Your task to perform on an android device: What's the weather going to be this weekend? Image 0: 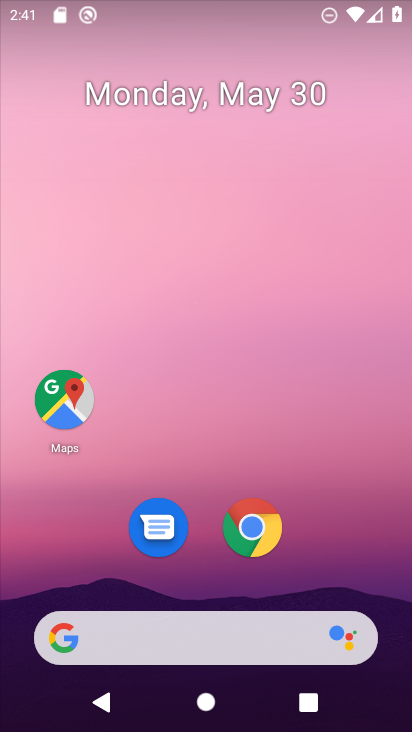
Step 0: drag from (239, 712) to (231, 17)
Your task to perform on an android device: What's the weather going to be this weekend? Image 1: 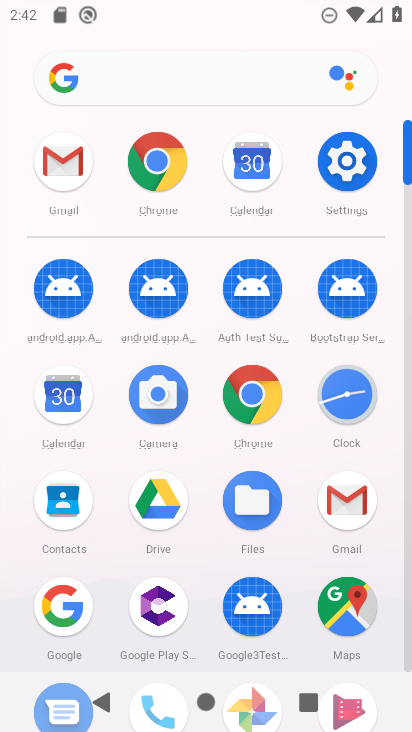
Step 1: press back button
Your task to perform on an android device: What's the weather going to be this weekend? Image 2: 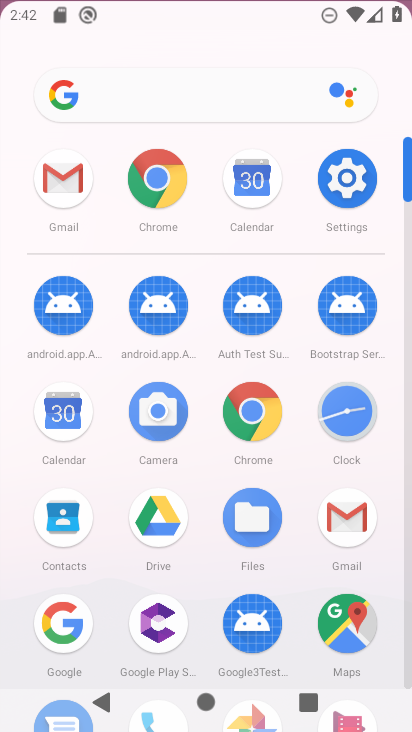
Step 2: press back button
Your task to perform on an android device: What's the weather going to be this weekend? Image 3: 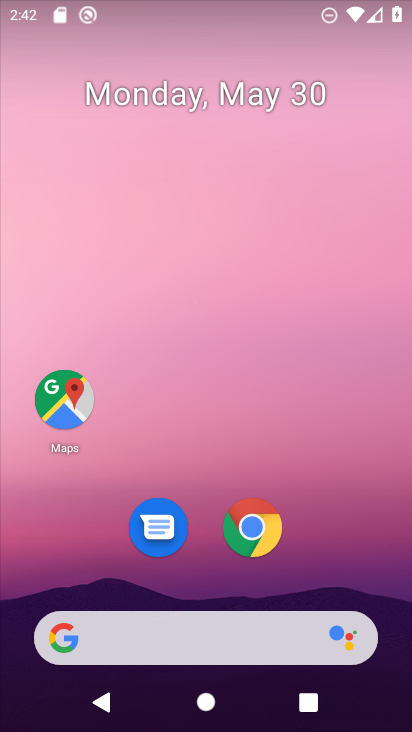
Step 3: drag from (52, 303) to (340, 448)
Your task to perform on an android device: What's the weather going to be this weekend? Image 4: 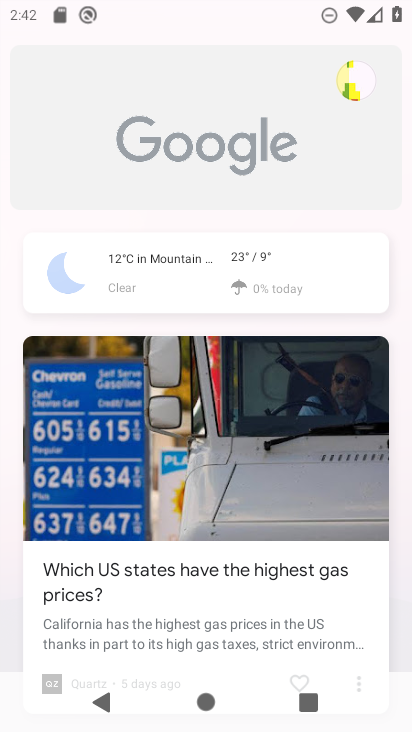
Step 4: drag from (96, 312) to (398, 467)
Your task to perform on an android device: What's the weather going to be this weekend? Image 5: 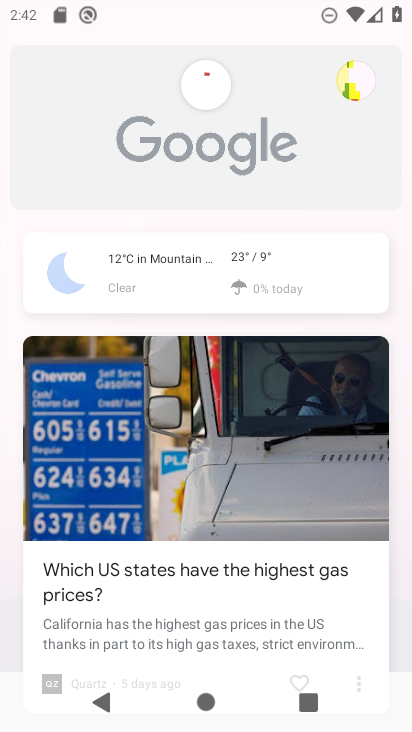
Step 5: click (190, 275)
Your task to perform on an android device: What's the weather going to be this weekend? Image 6: 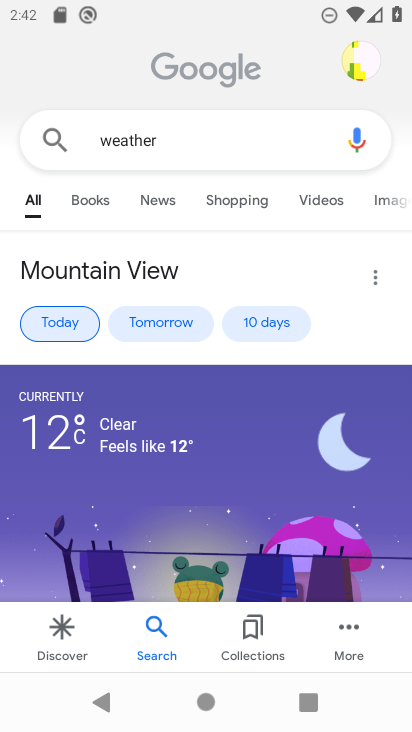
Step 6: click (182, 134)
Your task to perform on an android device: What's the weather going to be this weekend? Image 7: 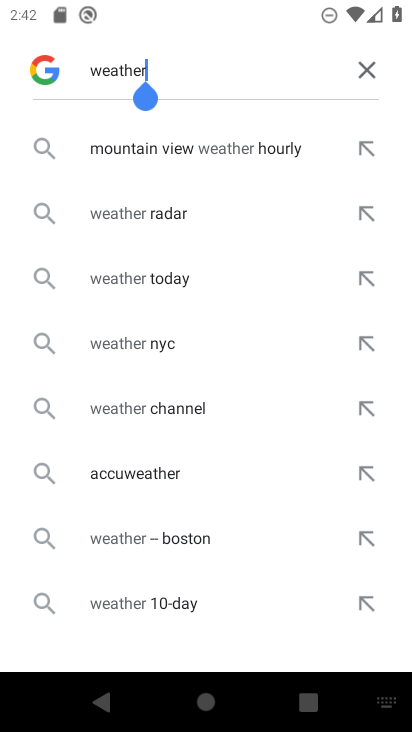
Step 7: press back button
Your task to perform on an android device: What's the weather going to be this weekend? Image 8: 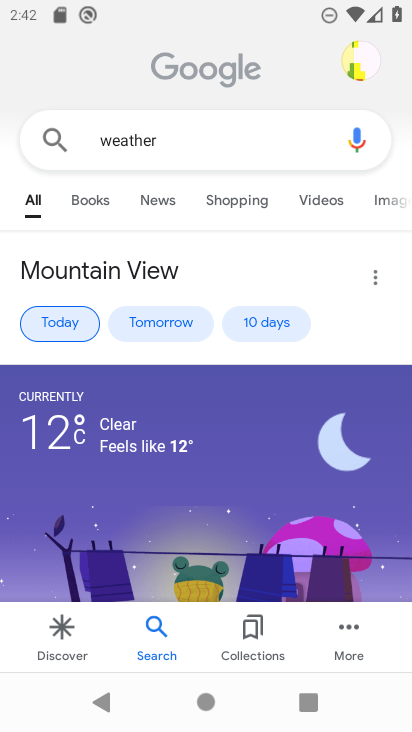
Step 8: click (345, 640)
Your task to perform on an android device: What's the weather going to be this weekend? Image 9: 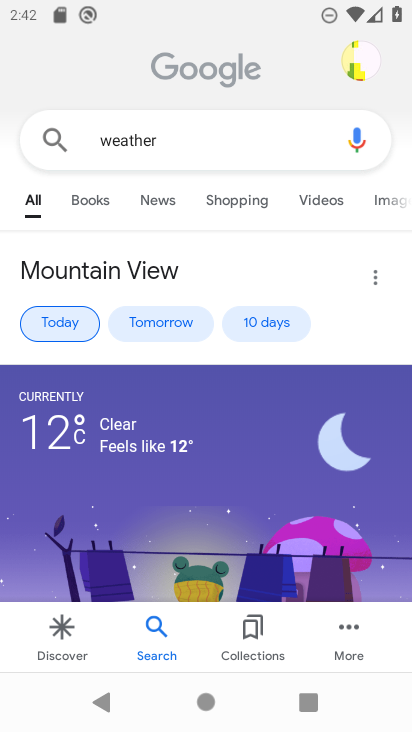
Step 9: click (345, 640)
Your task to perform on an android device: What's the weather going to be this weekend? Image 10: 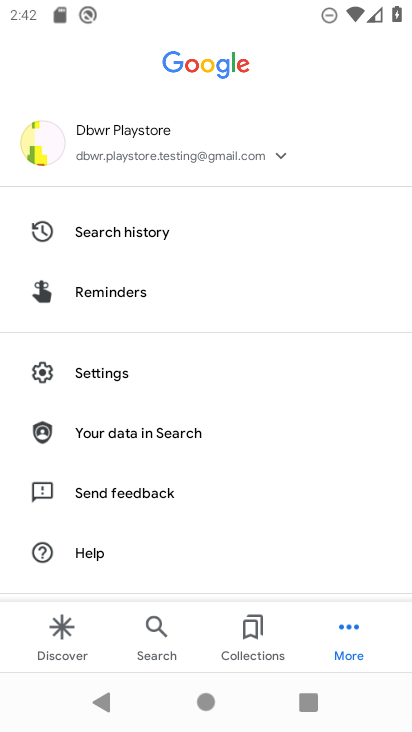
Step 10: click (345, 640)
Your task to perform on an android device: What's the weather going to be this weekend? Image 11: 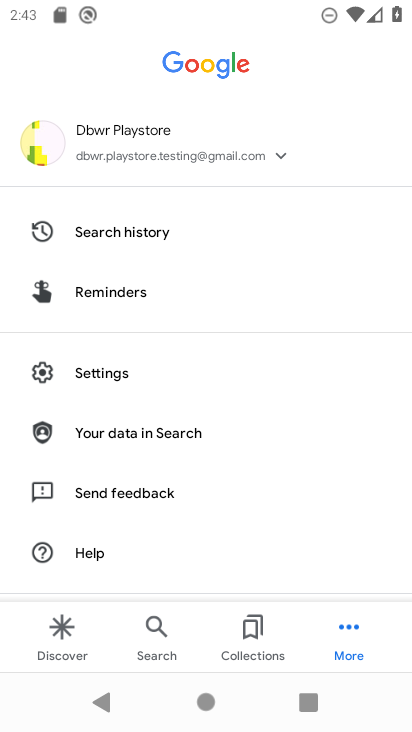
Step 11: task complete